Your task to perform on an android device: turn off translation in the chrome app Image 0: 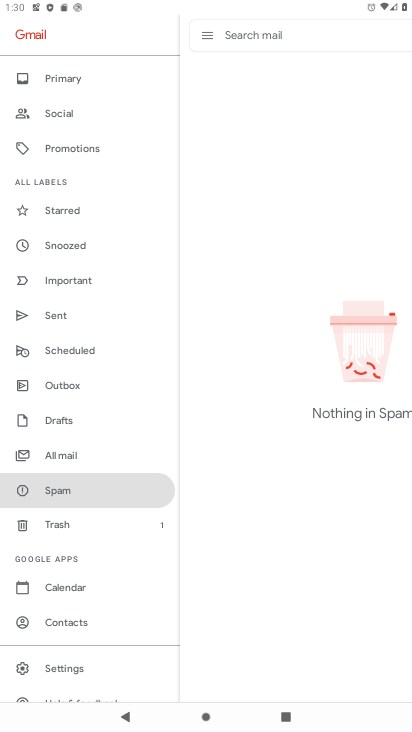
Step 0: press home button
Your task to perform on an android device: turn off translation in the chrome app Image 1: 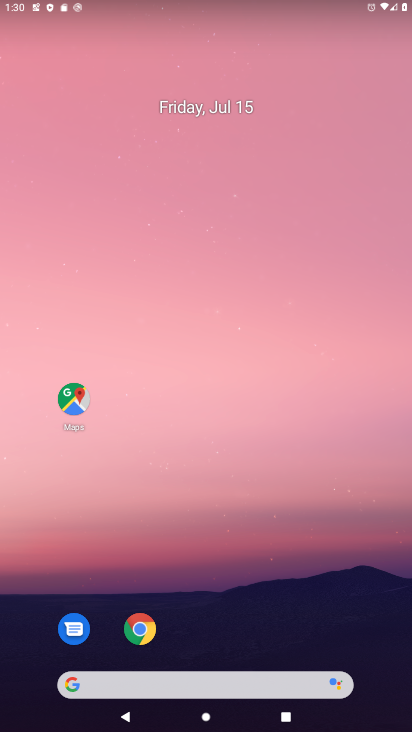
Step 1: drag from (321, 573) to (293, 96)
Your task to perform on an android device: turn off translation in the chrome app Image 2: 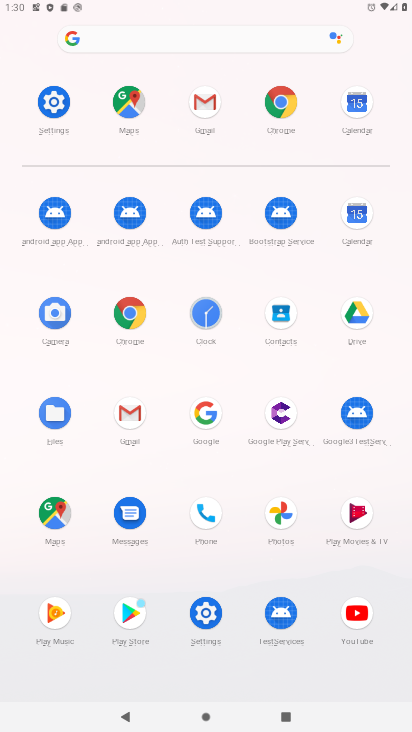
Step 2: click (132, 311)
Your task to perform on an android device: turn off translation in the chrome app Image 3: 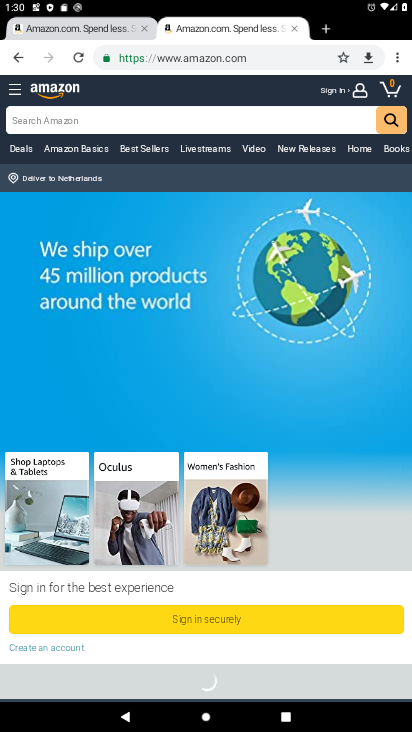
Step 3: drag from (405, 55) to (299, 406)
Your task to perform on an android device: turn off translation in the chrome app Image 4: 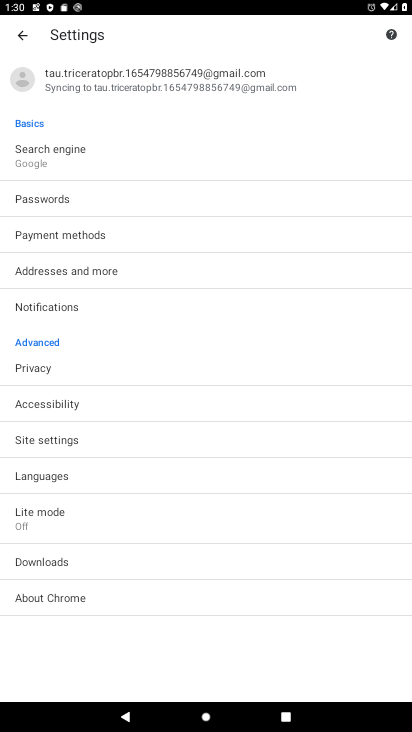
Step 4: click (57, 471)
Your task to perform on an android device: turn off translation in the chrome app Image 5: 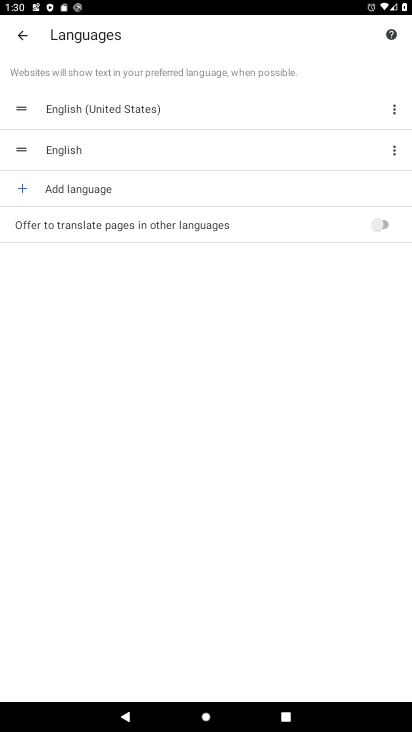
Step 5: task complete